Your task to perform on an android device: Open battery settings Image 0: 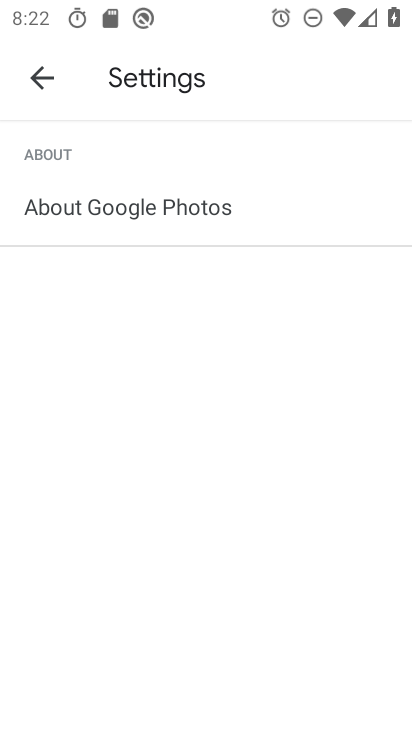
Step 0: press home button
Your task to perform on an android device: Open battery settings Image 1: 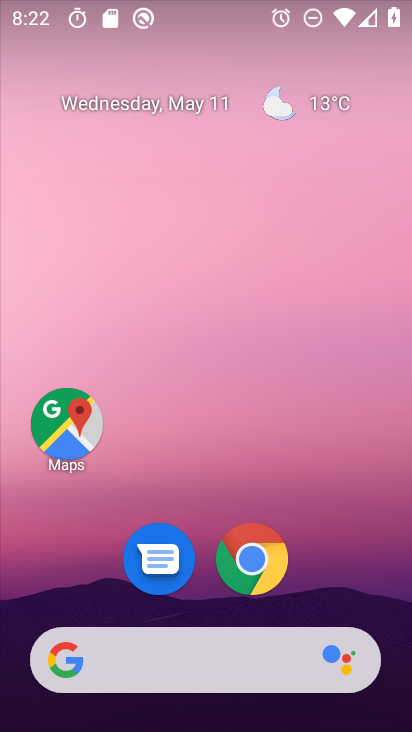
Step 1: drag from (311, 413) to (313, 68)
Your task to perform on an android device: Open battery settings Image 2: 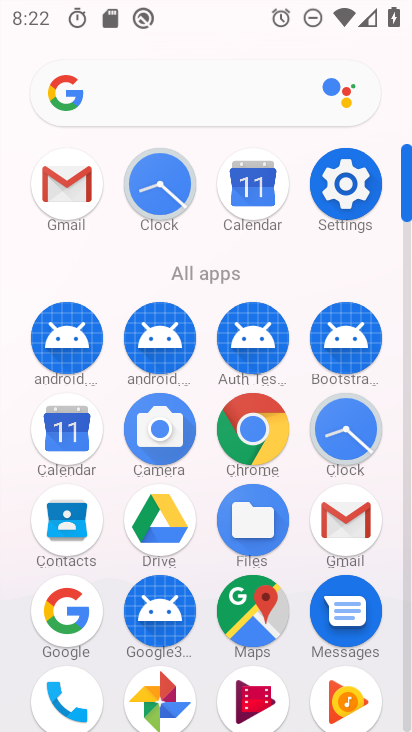
Step 2: click (349, 192)
Your task to perform on an android device: Open battery settings Image 3: 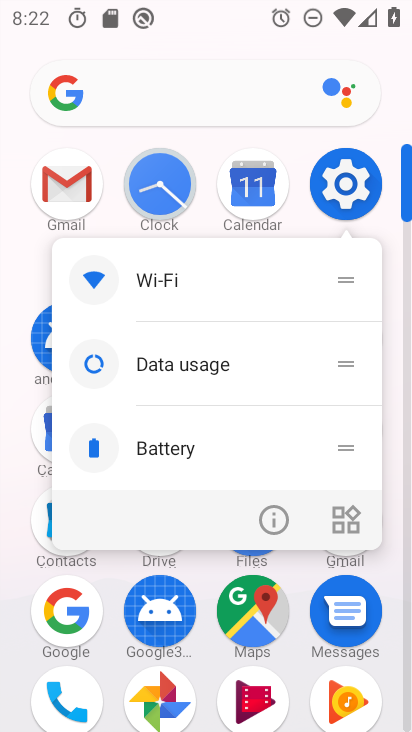
Step 3: click (183, 448)
Your task to perform on an android device: Open battery settings Image 4: 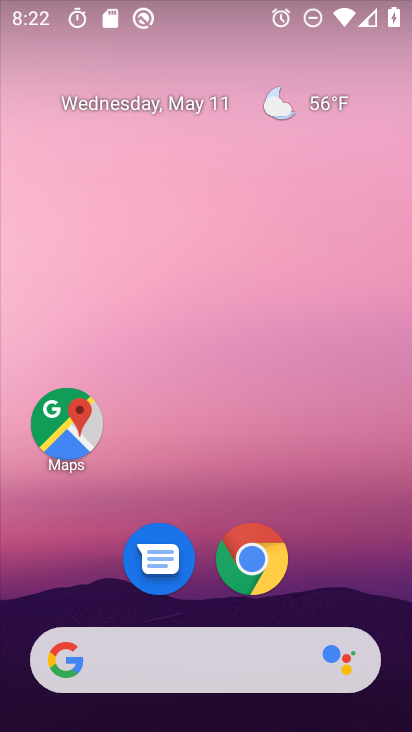
Step 4: drag from (337, 561) to (345, 87)
Your task to perform on an android device: Open battery settings Image 5: 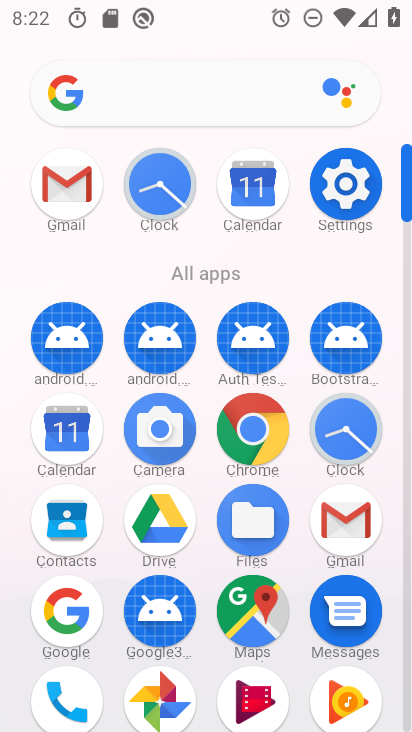
Step 5: click (341, 169)
Your task to perform on an android device: Open battery settings Image 6: 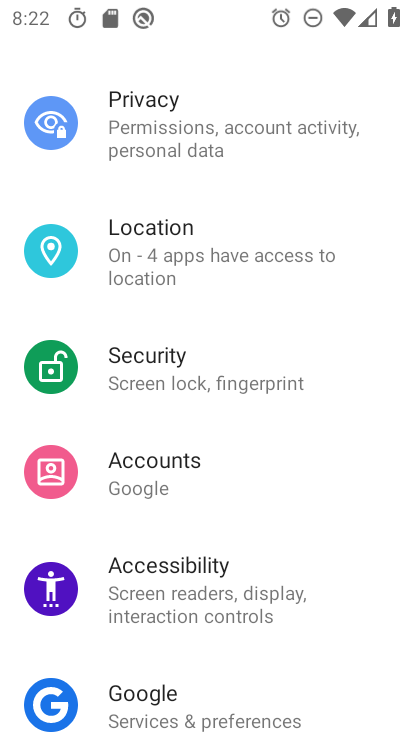
Step 6: drag from (241, 347) to (259, 574)
Your task to perform on an android device: Open battery settings Image 7: 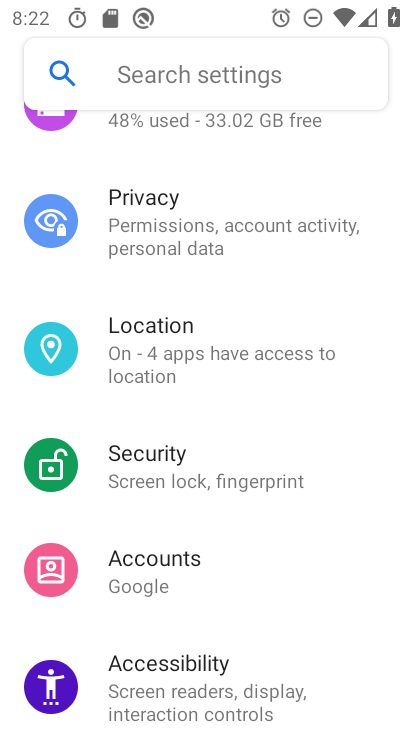
Step 7: drag from (228, 285) to (225, 579)
Your task to perform on an android device: Open battery settings Image 8: 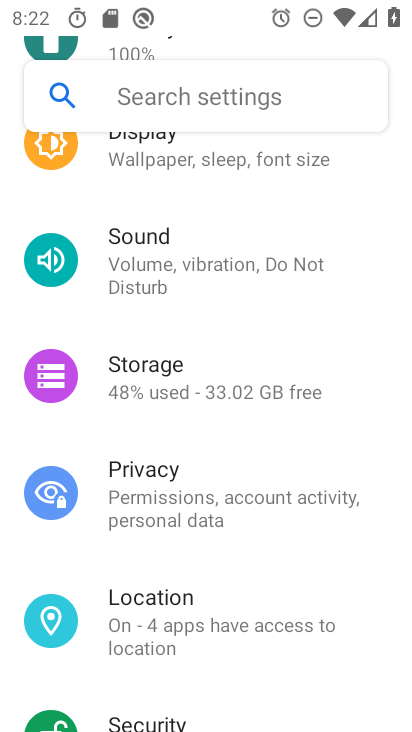
Step 8: drag from (192, 351) to (188, 655)
Your task to perform on an android device: Open battery settings Image 9: 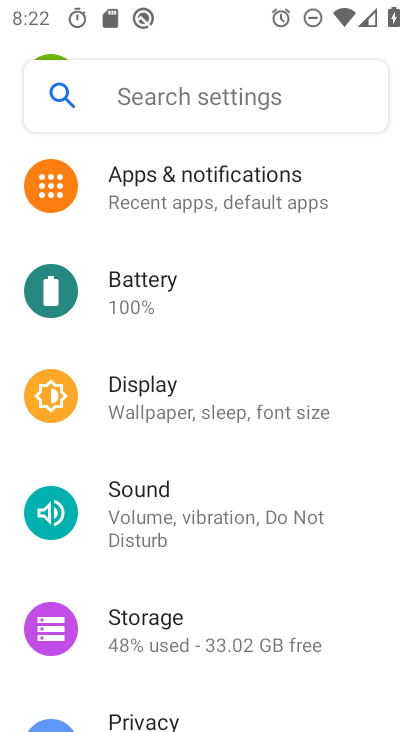
Step 9: click (108, 284)
Your task to perform on an android device: Open battery settings Image 10: 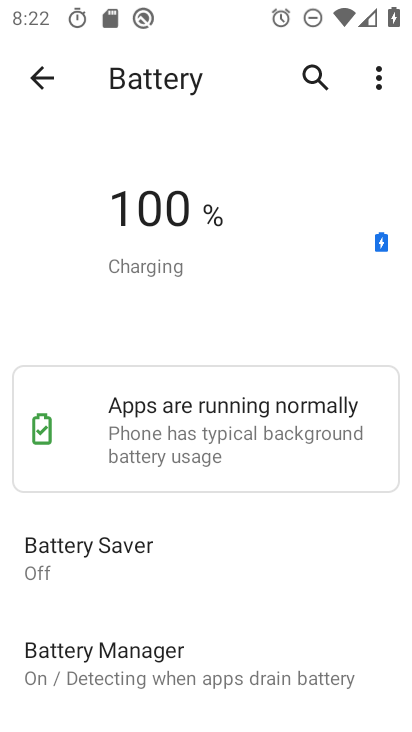
Step 10: task complete